Your task to perform on an android device: search for starred emails in the gmail app Image 0: 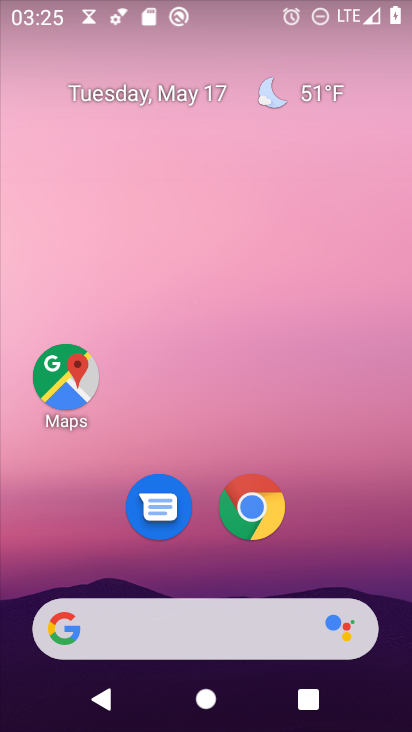
Step 0: drag from (329, 575) to (299, 99)
Your task to perform on an android device: search for starred emails in the gmail app Image 1: 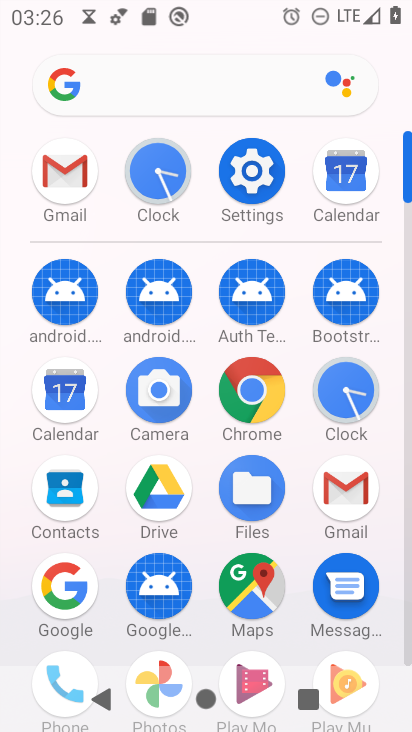
Step 1: click (349, 488)
Your task to perform on an android device: search for starred emails in the gmail app Image 2: 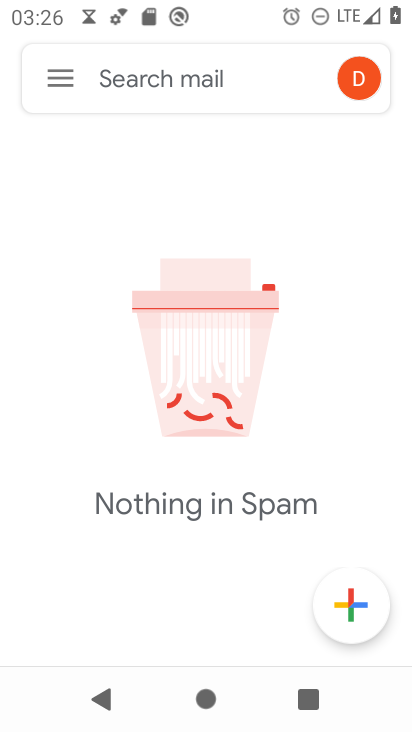
Step 2: click (60, 77)
Your task to perform on an android device: search for starred emails in the gmail app Image 3: 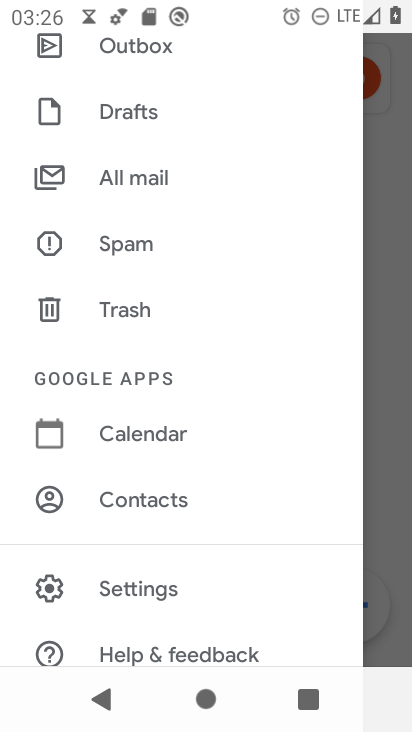
Step 3: drag from (170, 219) to (243, 435)
Your task to perform on an android device: search for starred emails in the gmail app Image 4: 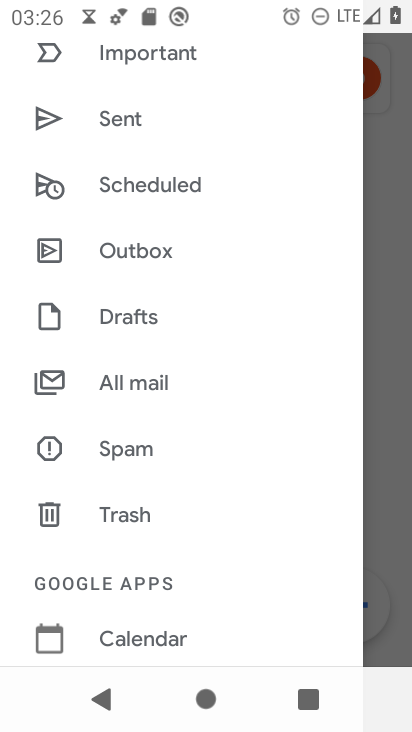
Step 4: drag from (225, 479) to (240, 523)
Your task to perform on an android device: search for starred emails in the gmail app Image 5: 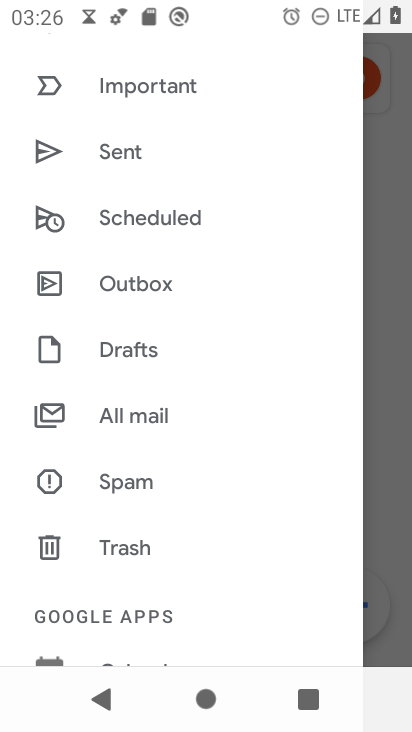
Step 5: drag from (130, 153) to (229, 509)
Your task to perform on an android device: search for starred emails in the gmail app Image 6: 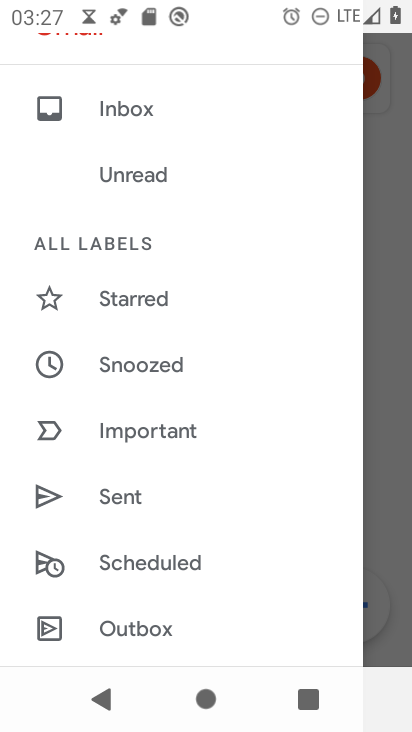
Step 6: click (195, 298)
Your task to perform on an android device: search for starred emails in the gmail app Image 7: 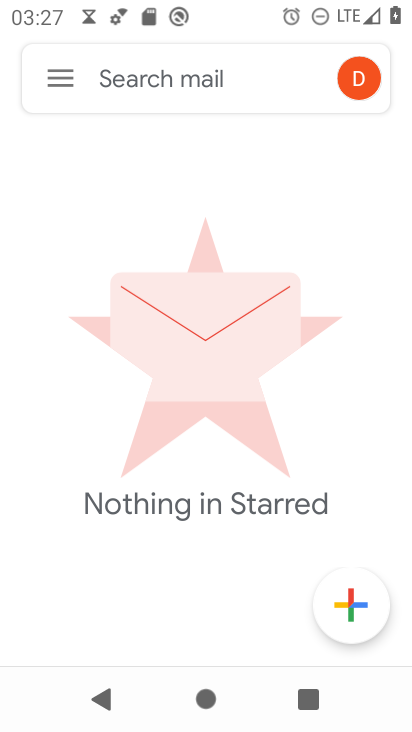
Step 7: task complete